Your task to perform on an android device: toggle wifi Image 0: 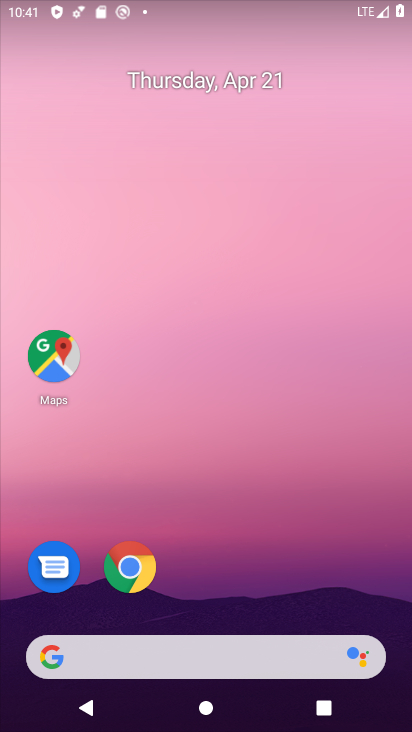
Step 0: drag from (216, 600) to (233, 135)
Your task to perform on an android device: toggle wifi Image 1: 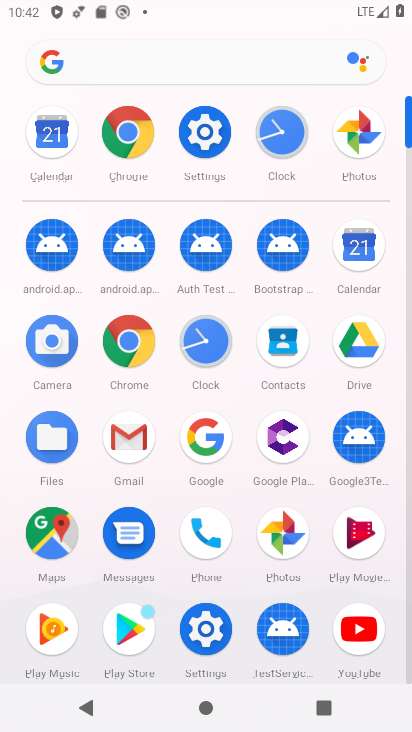
Step 1: click (203, 620)
Your task to perform on an android device: toggle wifi Image 2: 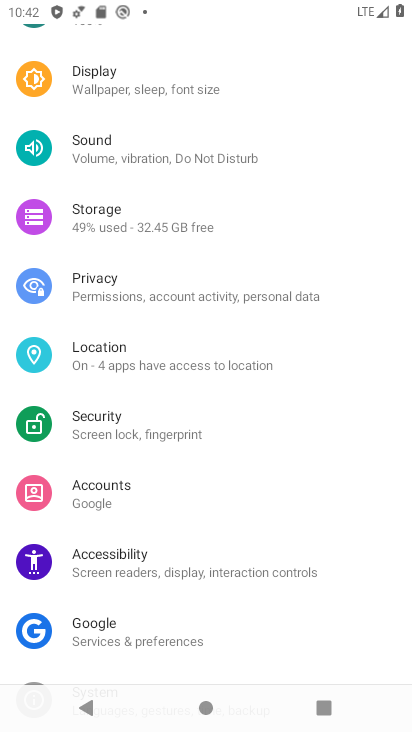
Step 2: drag from (186, 156) to (224, 648)
Your task to perform on an android device: toggle wifi Image 3: 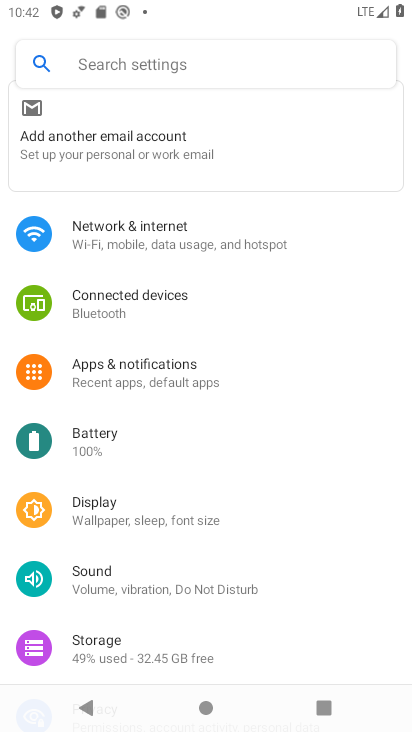
Step 3: click (177, 230)
Your task to perform on an android device: toggle wifi Image 4: 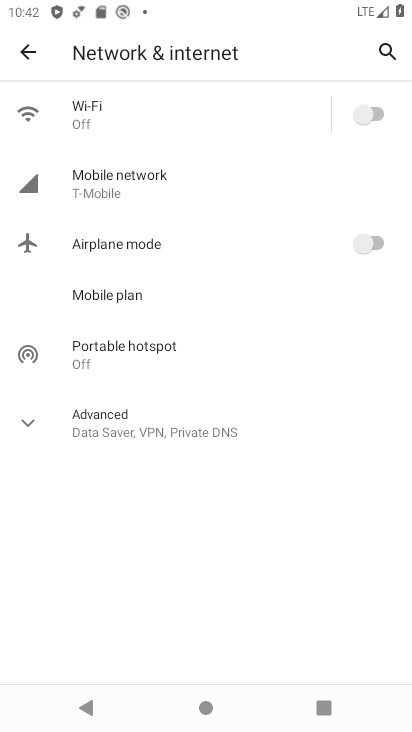
Step 4: click (361, 104)
Your task to perform on an android device: toggle wifi Image 5: 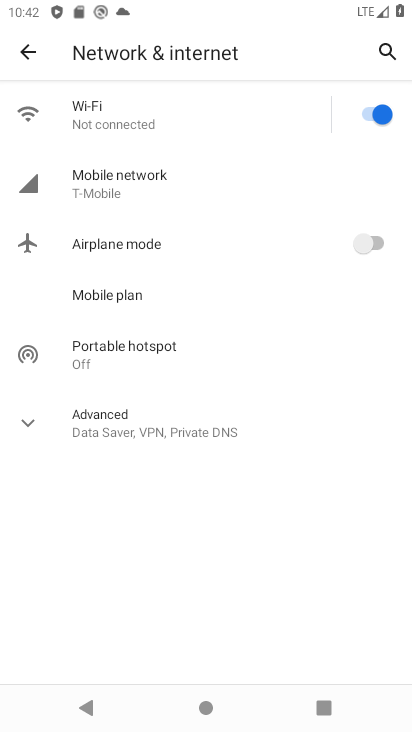
Step 5: task complete